Your task to perform on an android device: Open settings on Google Maps Image 0: 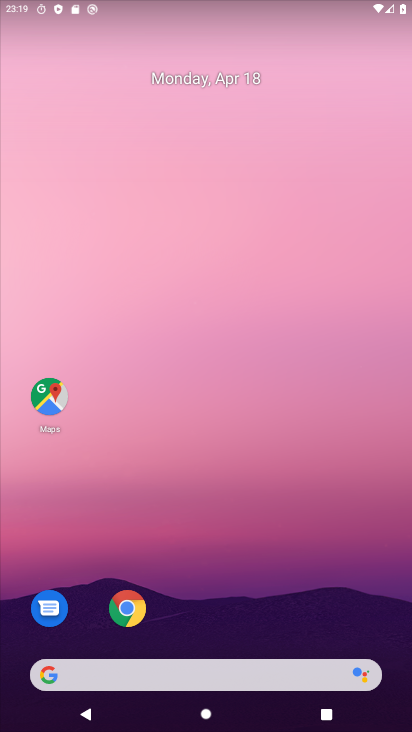
Step 0: click (47, 394)
Your task to perform on an android device: Open settings on Google Maps Image 1: 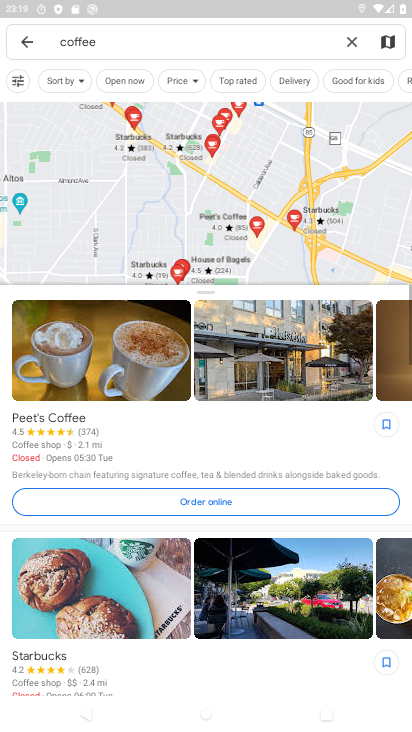
Step 1: click (354, 38)
Your task to perform on an android device: Open settings on Google Maps Image 2: 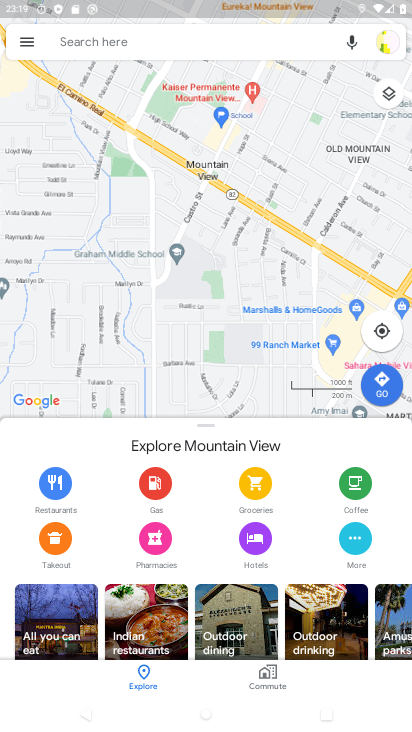
Step 2: click (26, 36)
Your task to perform on an android device: Open settings on Google Maps Image 3: 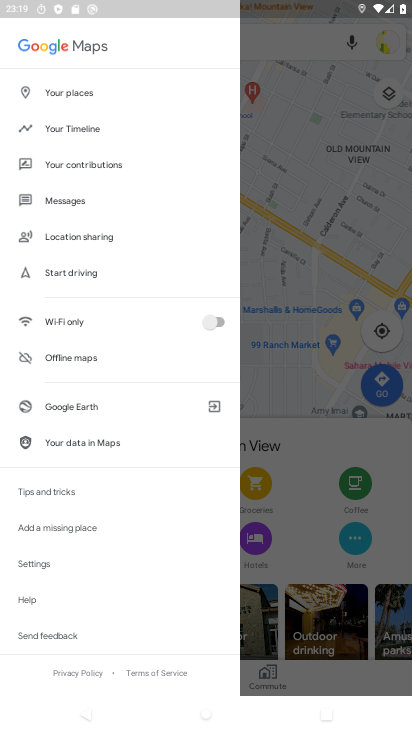
Step 3: click (33, 564)
Your task to perform on an android device: Open settings on Google Maps Image 4: 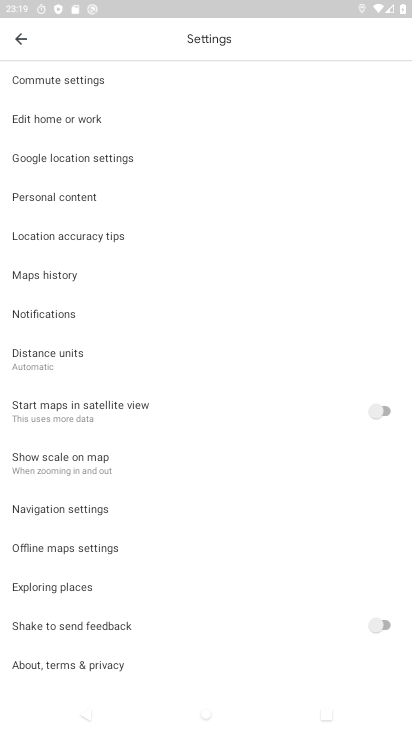
Step 4: task complete